Your task to perform on an android device: Go to Yahoo.com Image 0: 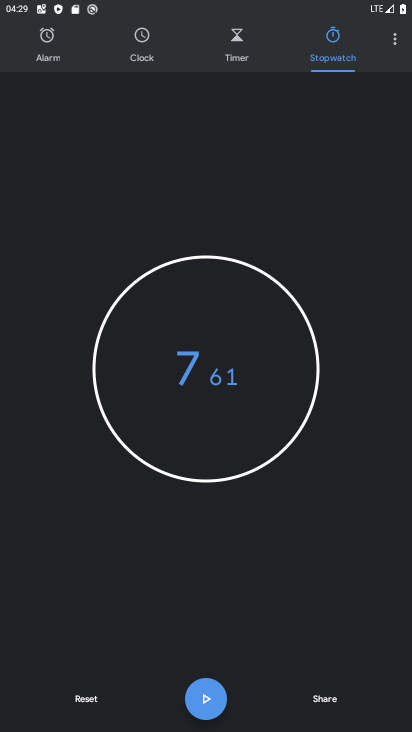
Step 0: press home button
Your task to perform on an android device: Go to Yahoo.com Image 1: 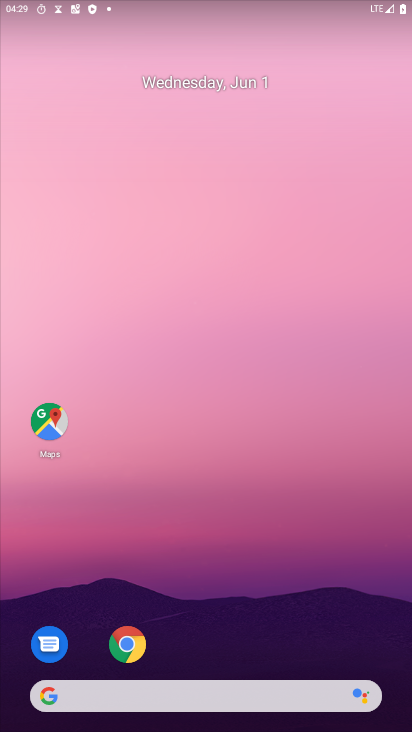
Step 1: click (57, 697)
Your task to perform on an android device: Go to Yahoo.com Image 2: 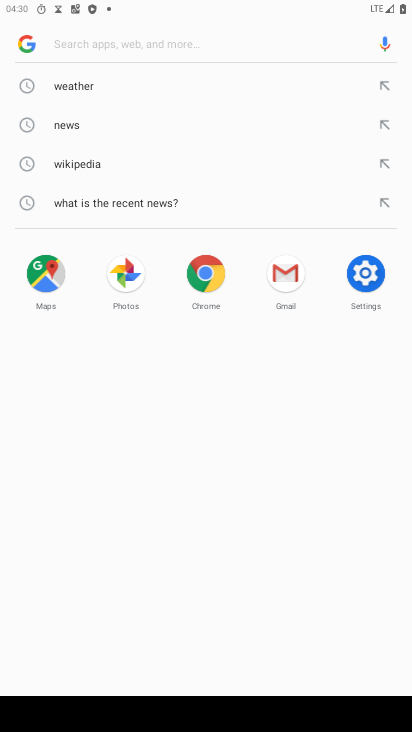
Step 2: type "Yahoo.com"
Your task to perform on an android device: Go to Yahoo.com Image 3: 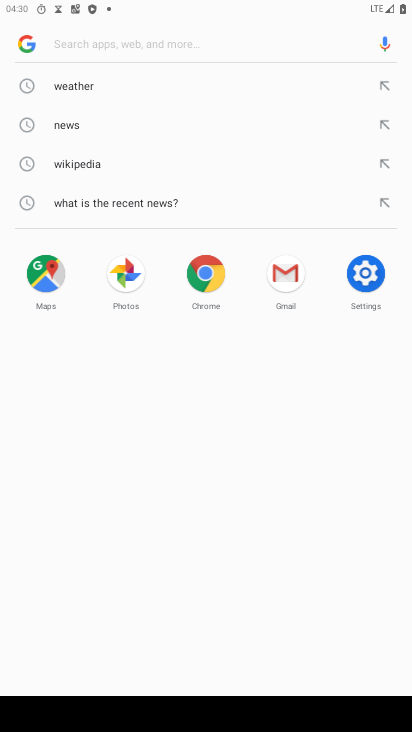
Step 3: click (165, 39)
Your task to perform on an android device: Go to Yahoo.com Image 4: 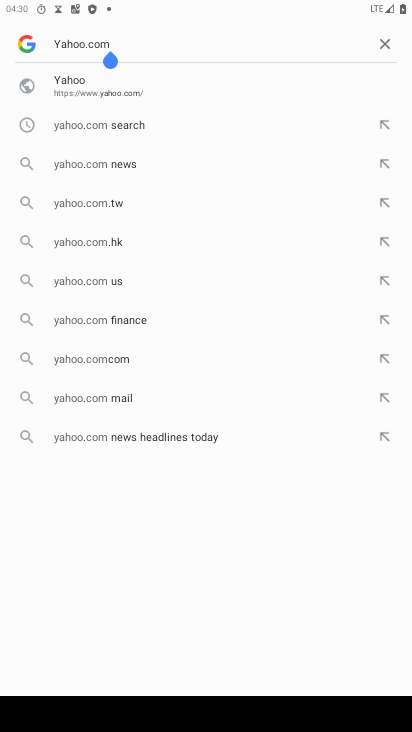
Step 4: click (72, 85)
Your task to perform on an android device: Go to Yahoo.com Image 5: 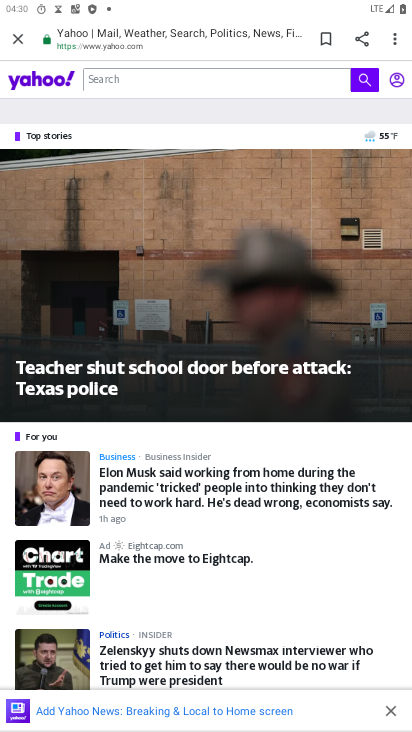
Step 5: task complete